Your task to perform on an android device: change alarm snooze length Image 0: 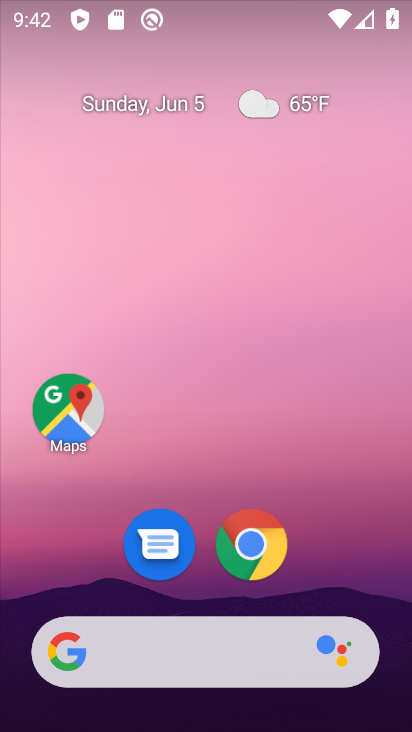
Step 0: task complete